Your task to perform on an android device: Open the map Image 0: 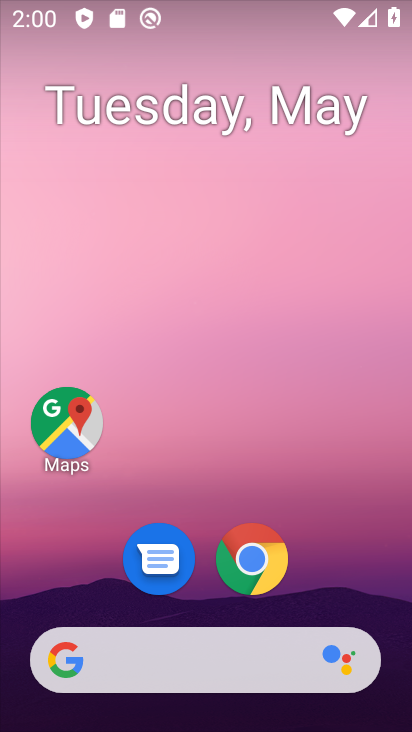
Step 0: click (59, 417)
Your task to perform on an android device: Open the map Image 1: 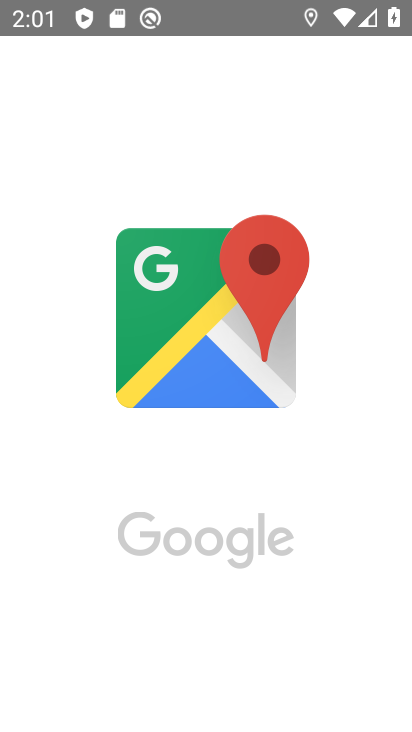
Step 1: click (308, 548)
Your task to perform on an android device: Open the map Image 2: 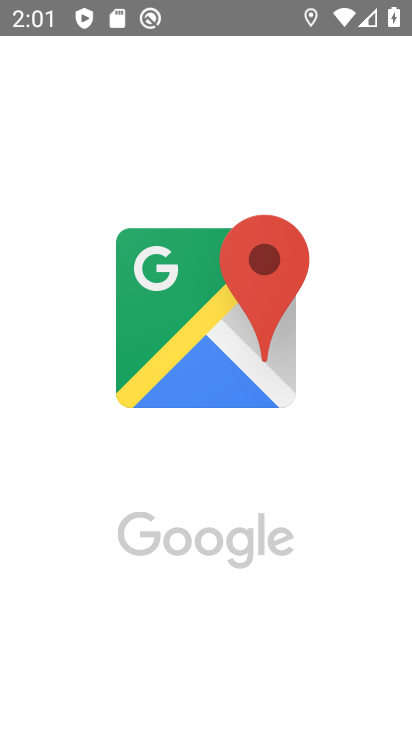
Step 2: task complete